Your task to perform on an android device: Open the calendar app, open the side menu, and click the "Day" option Image 0: 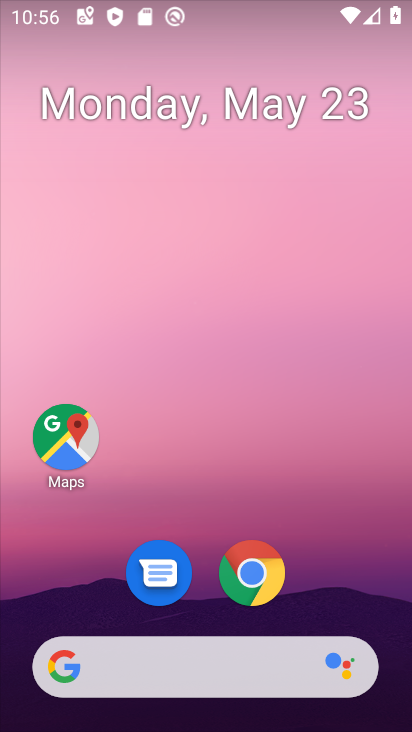
Step 0: drag from (294, 634) to (305, 0)
Your task to perform on an android device: Open the calendar app, open the side menu, and click the "Day" option Image 1: 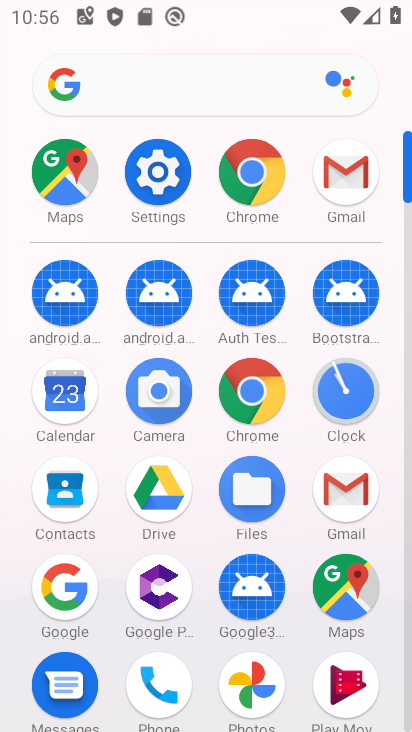
Step 1: click (62, 399)
Your task to perform on an android device: Open the calendar app, open the side menu, and click the "Day" option Image 2: 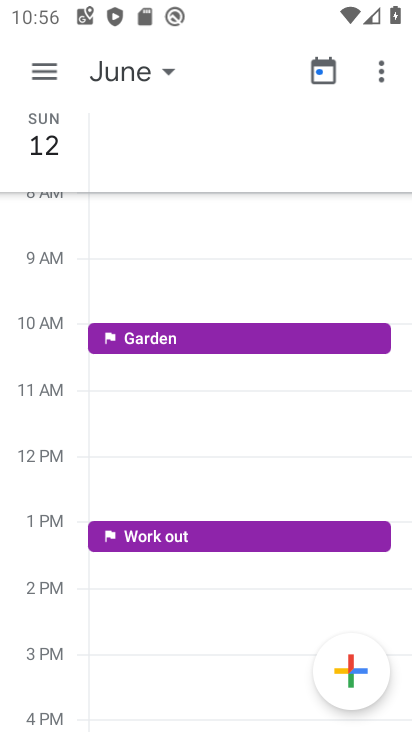
Step 2: click (45, 71)
Your task to perform on an android device: Open the calendar app, open the side menu, and click the "Day" option Image 3: 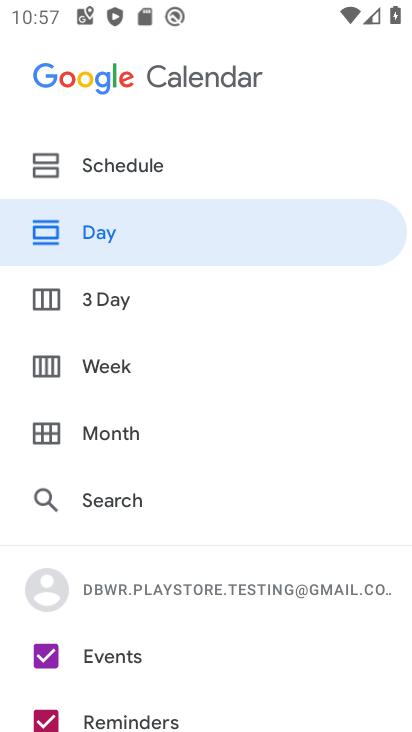
Step 3: click (99, 227)
Your task to perform on an android device: Open the calendar app, open the side menu, and click the "Day" option Image 4: 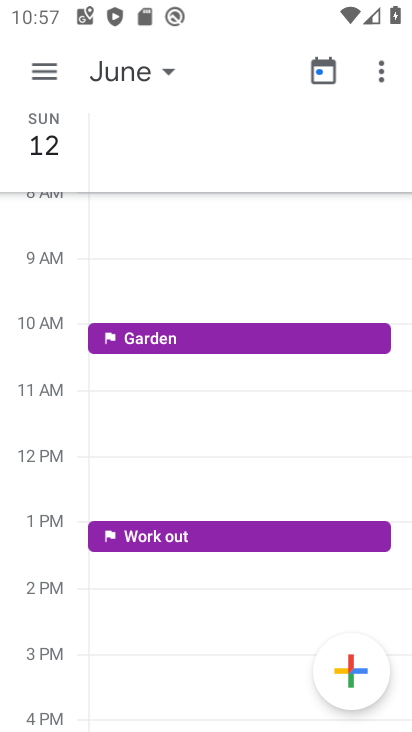
Step 4: task complete